Your task to perform on an android device: delete location history Image 0: 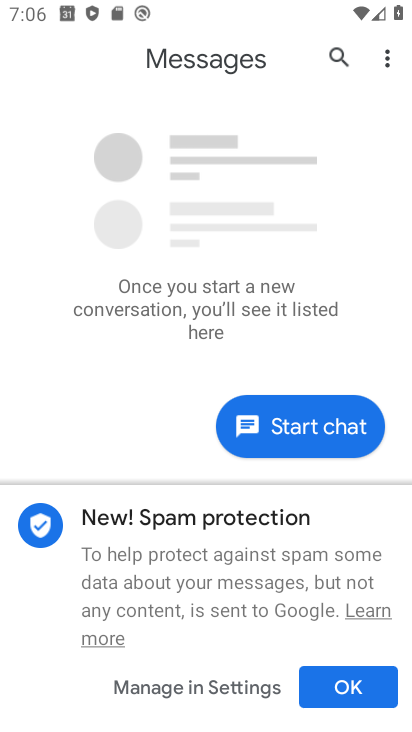
Step 0: press back button
Your task to perform on an android device: delete location history Image 1: 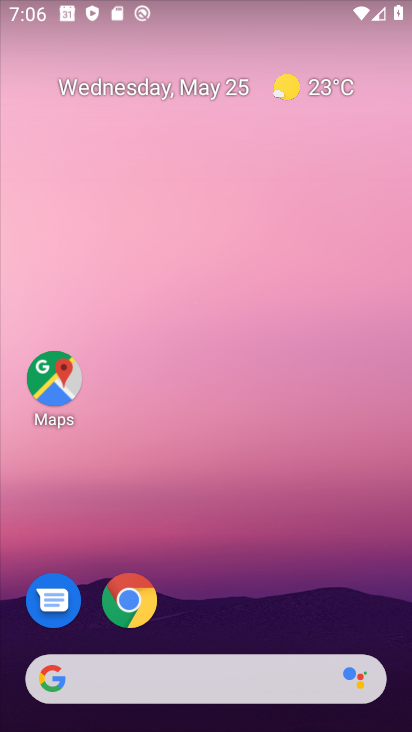
Step 1: click (54, 380)
Your task to perform on an android device: delete location history Image 2: 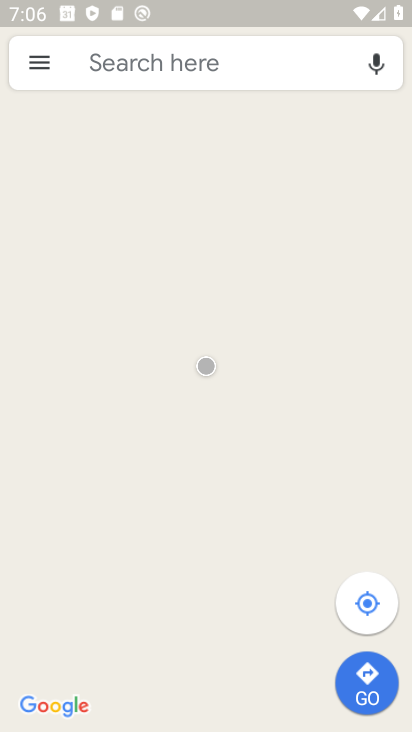
Step 2: click (40, 64)
Your task to perform on an android device: delete location history Image 3: 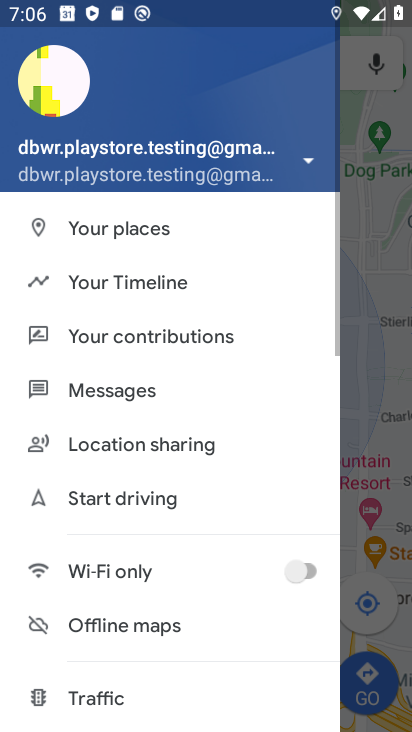
Step 3: drag from (110, 550) to (185, 447)
Your task to perform on an android device: delete location history Image 4: 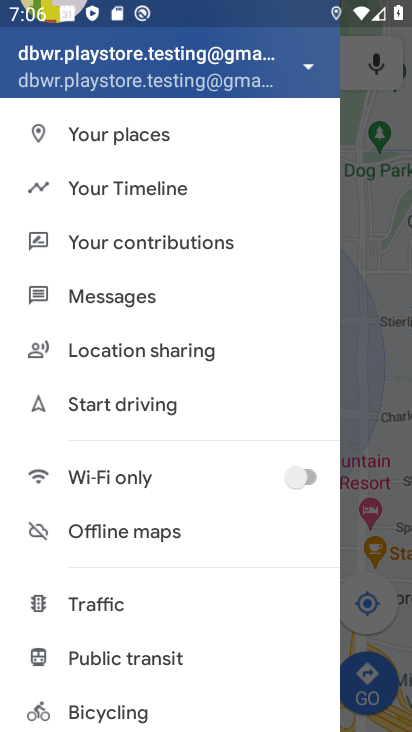
Step 4: drag from (113, 551) to (173, 468)
Your task to perform on an android device: delete location history Image 5: 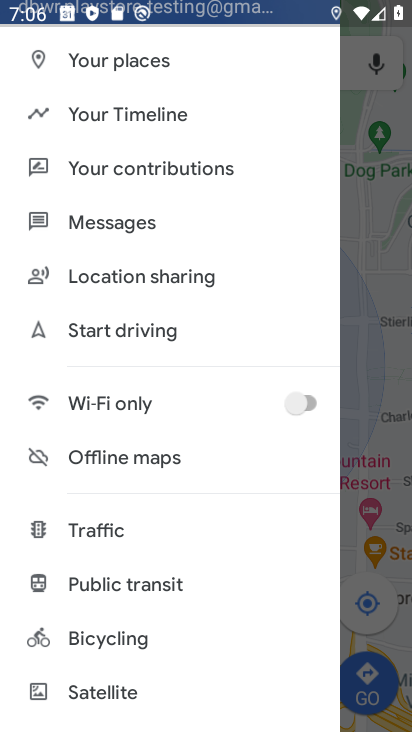
Step 5: drag from (99, 603) to (145, 501)
Your task to perform on an android device: delete location history Image 6: 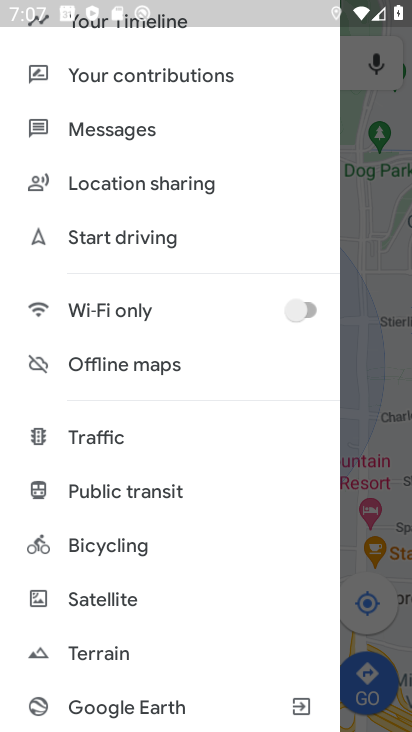
Step 6: drag from (105, 617) to (158, 521)
Your task to perform on an android device: delete location history Image 7: 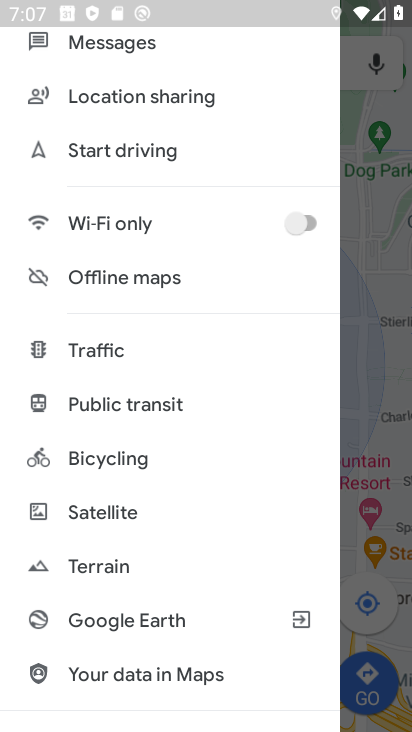
Step 7: drag from (90, 599) to (171, 499)
Your task to perform on an android device: delete location history Image 8: 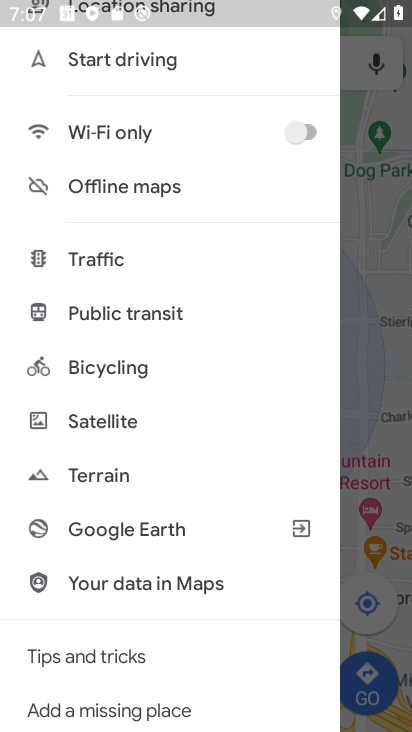
Step 8: drag from (105, 634) to (202, 514)
Your task to perform on an android device: delete location history Image 9: 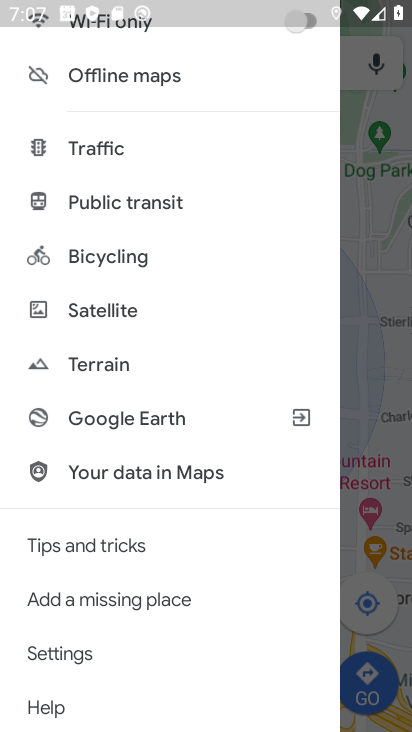
Step 9: click (51, 649)
Your task to perform on an android device: delete location history Image 10: 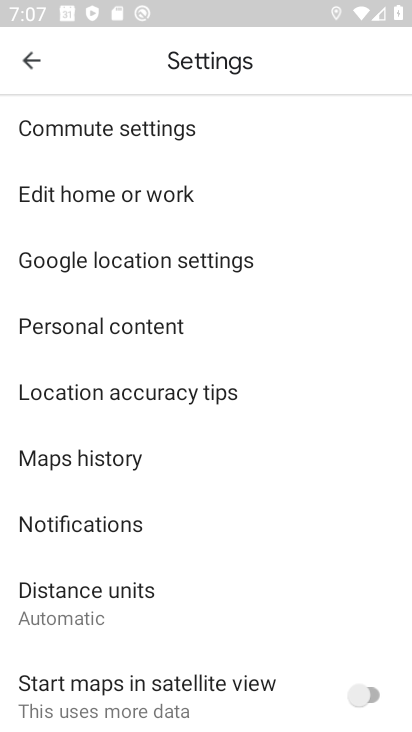
Step 10: click (107, 335)
Your task to perform on an android device: delete location history Image 11: 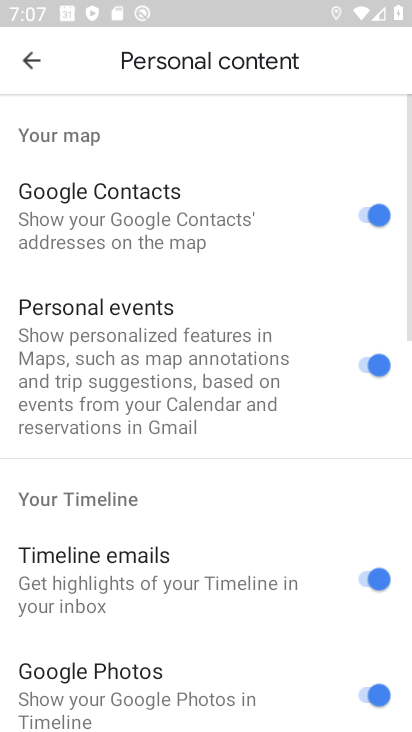
Step 11: drag from (105, 476) to (179, 378)
Your task to perform on an android device: delete location history Image 12: 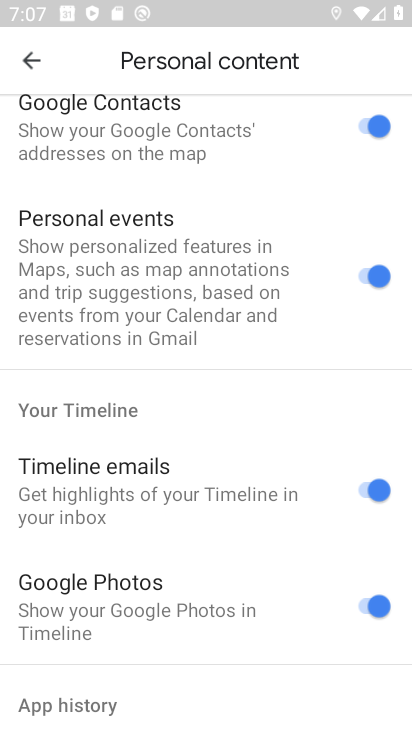
Step 12: drag from (114, 534) to (197, 436)
Your task to perform on an android device: delete location history Image 13: 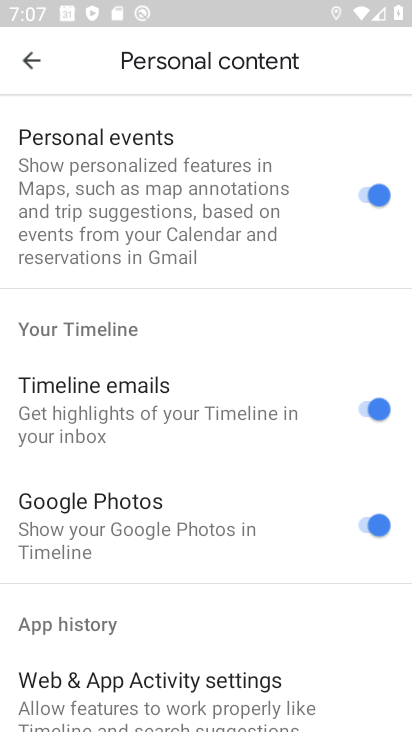
Step 13: drag from (149, 611) to (195, 520)
Your task to perform on an android device: delete location history Image 14: 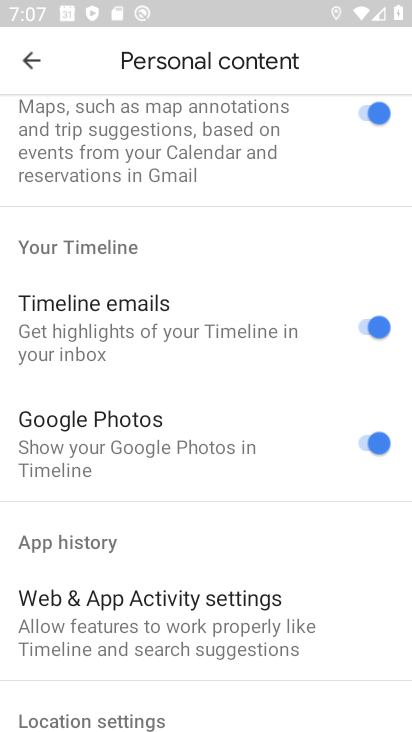
Step 14: drag from (111, 677) to (194, 549)
Your task to perform on an android device: delete location history Image 15: 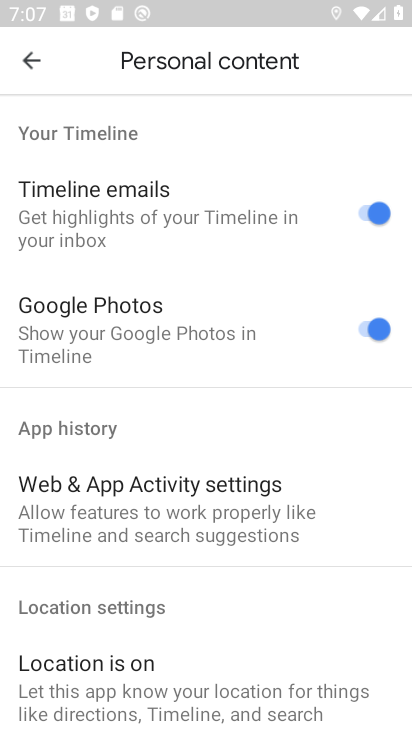
Step 15: drag from (91, 644) to (187, 523)
Your task to perform on an android device: delete location history Image 16: 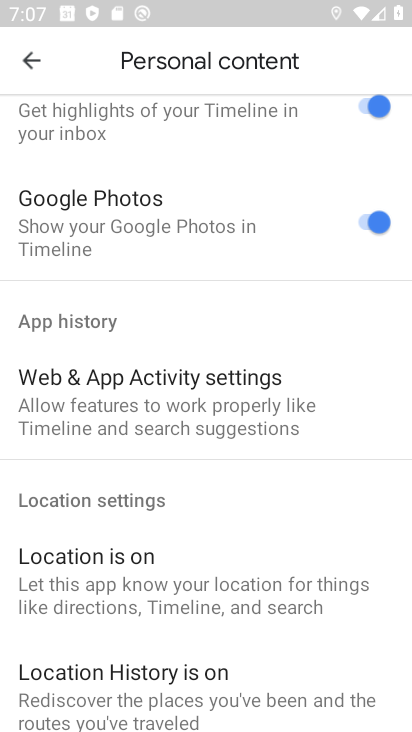
Step 16: drag from (93, 644) to (209, 516)
Your task to perform on an android device: delete location history Image 17: 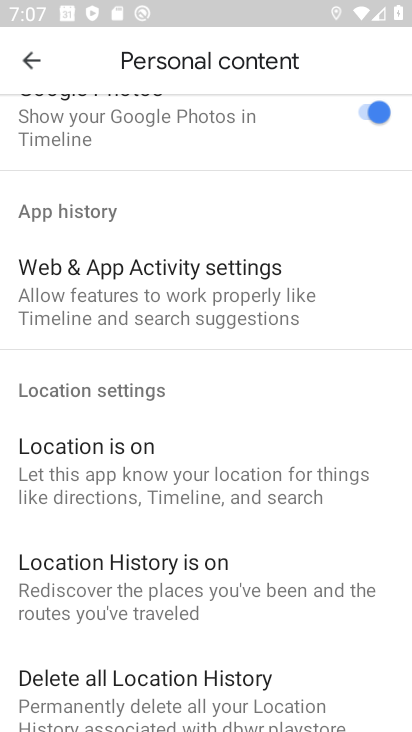
Step 17: drag from (113, 632) to (239, 485)
Your task to perform on an android device: delete location history Image 18: 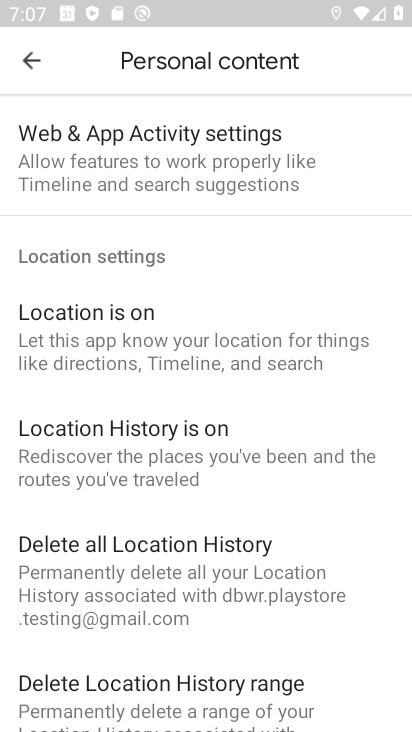
Step 18: click (196, 554)
Your task to perform on an android device: delete location history Image 19: 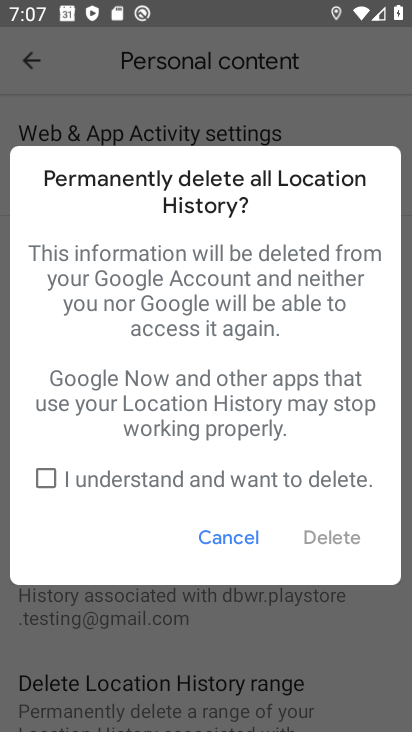
Step 19: click (54, 472)
Your task to perform on an android device: delete location history Image 20: 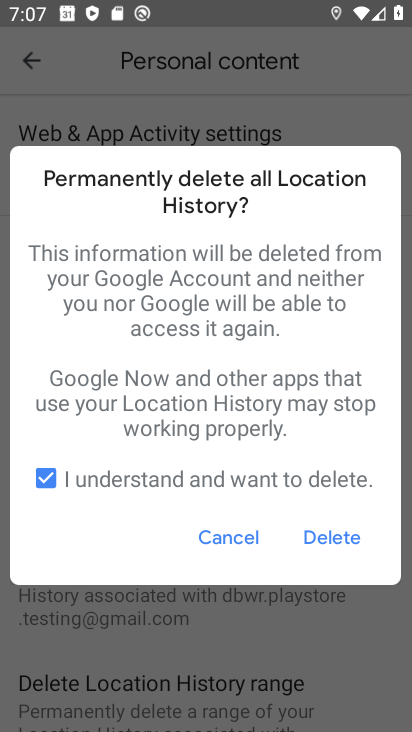
Step 20: click (325, 542)
Your task to perform on an android device: delete location history Image 21: 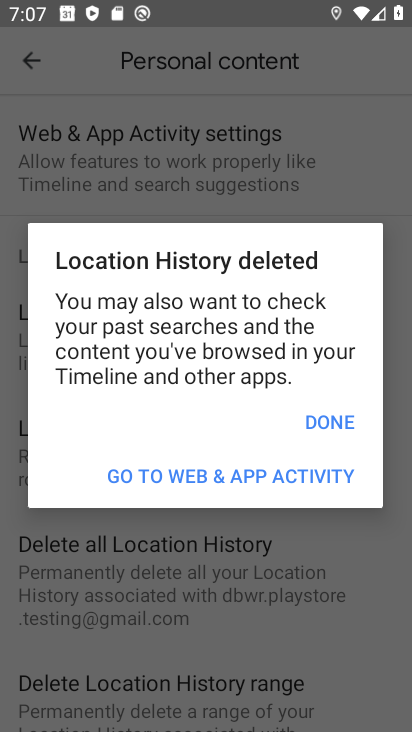
Step 21: click (337, 420)
Your task to perform on an android device: delete location history Image 22: 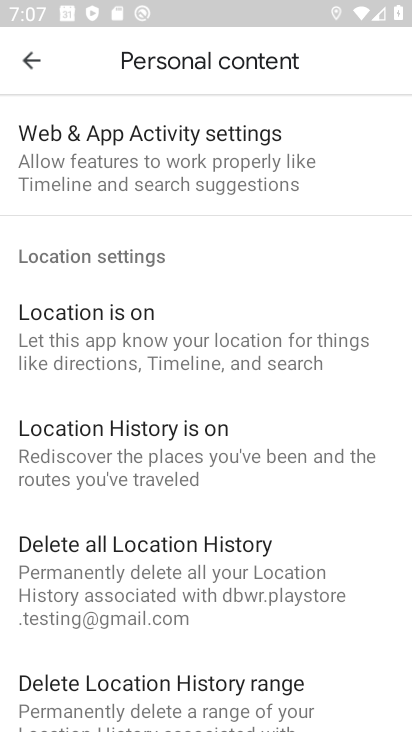
Step 22: task complete